Your task to perform on an android device: delete the emails in spam in the gmail app Image 0: 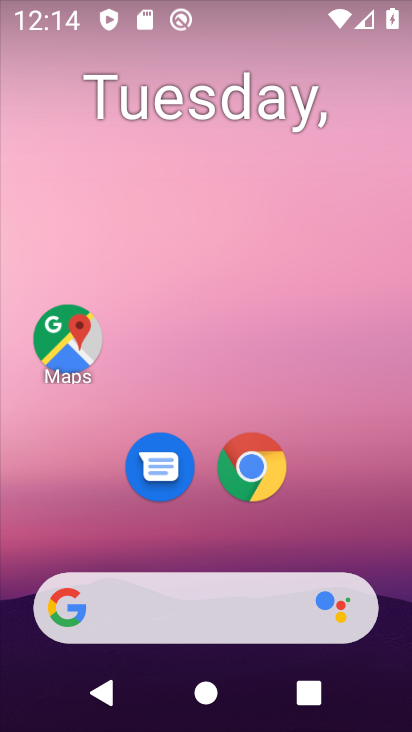
Step 0: drag from (296, 534) to (222, 76)
Your task to perform on an android device: delete the emails in spam in the gmail app Image 1: 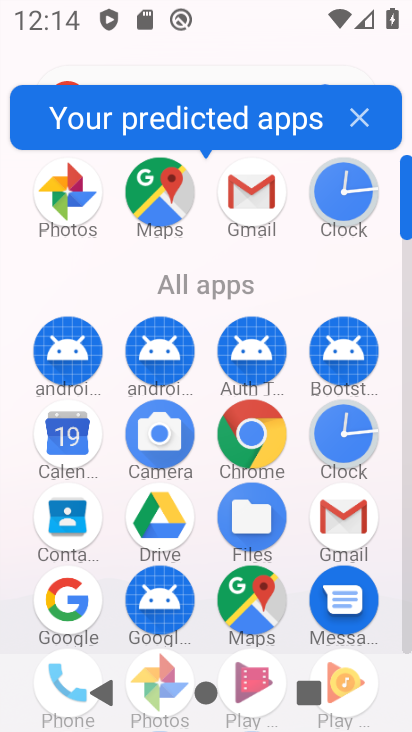
Step 1: click (336, 511)
Your task to perform on an android device: delete the emails in spam in the gmail app Image 2: 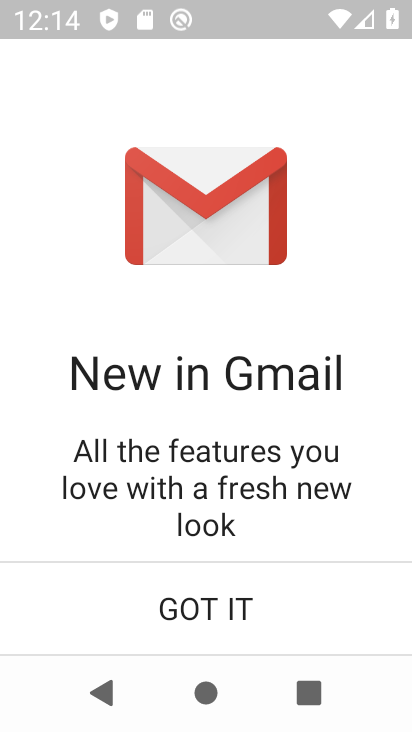
Step 2: click (217, 621)
Your task to perform on an android device: delete the emails in spam in the gmail app Image 3: 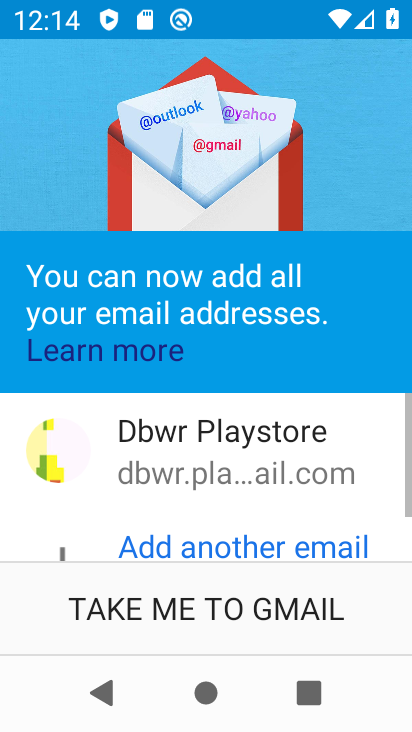
Step 3: click (217, 621)
Your task to perform on an android device: delete the emails in spam in the gmail app Image 4: 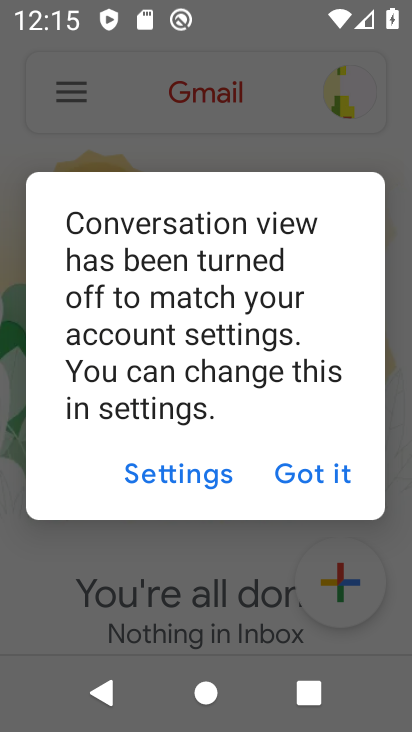
Step 4: click (289, 474)
Your task to perform on an android device: delete the emails in spam in the gmail app Image 5: 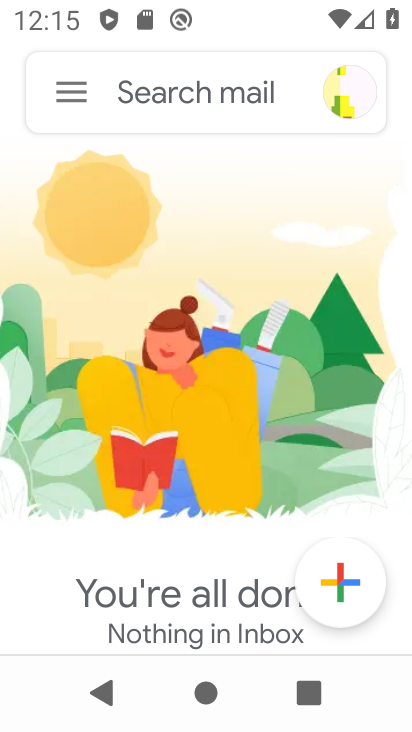
Step 5: click (87, 86)
Your task to perform on an android device: delete the emails in spam in the gmail app Image 6: 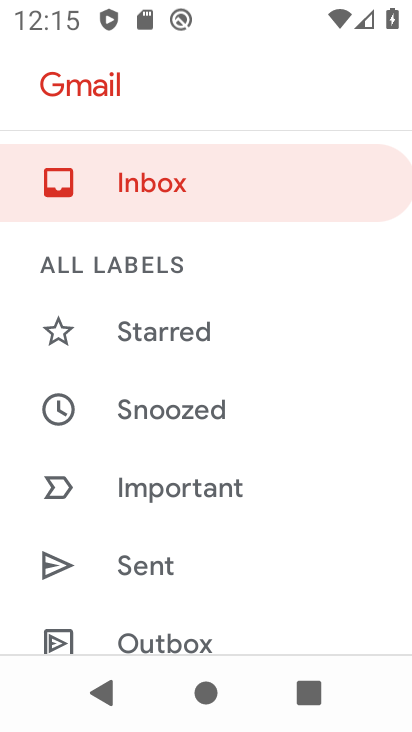
Step 6: drag from (70, 513) to (105, 262)
Your task to perform on an android device: delete the emails in spam in the gmail app Image 7: 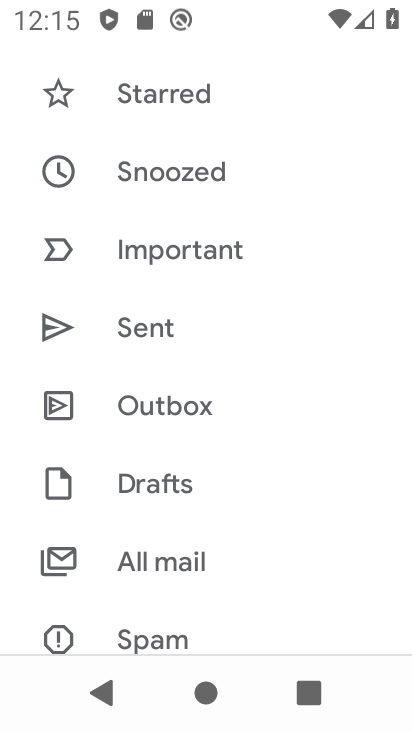
Step 7: click (152, 634)
Your task to perform on an android device: delete the emails in spam in the gmail app Image 8: 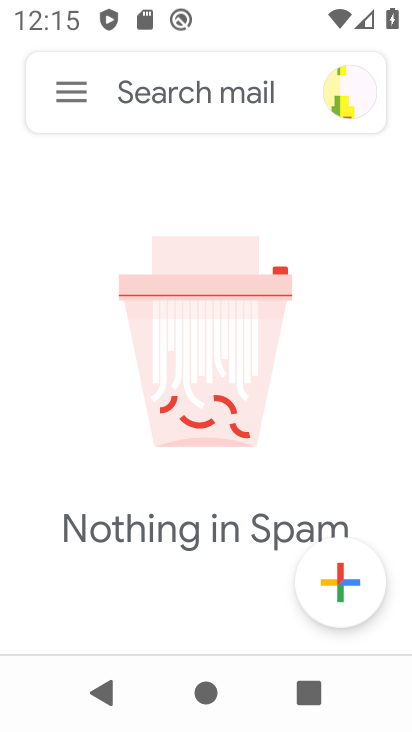
Step 8: task complete